Your task to perform on an android device: Open Google Chrome and click the shortcut for Amazon.com Image 0: 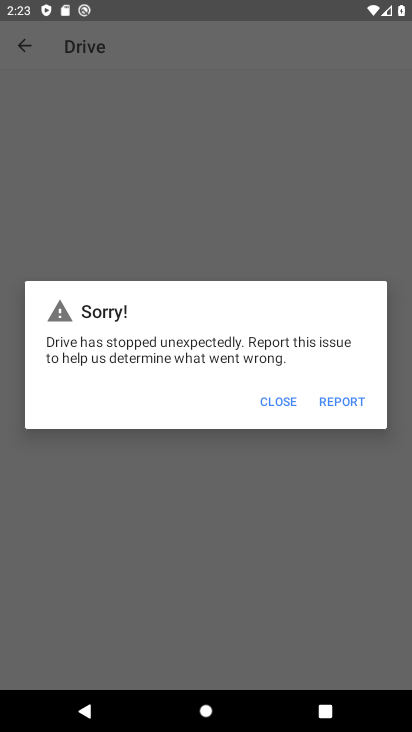
Step 0: press home button
Your task to perform on an android device: Open Google Chrome and click the shortcut for Amazon.com Image 1: 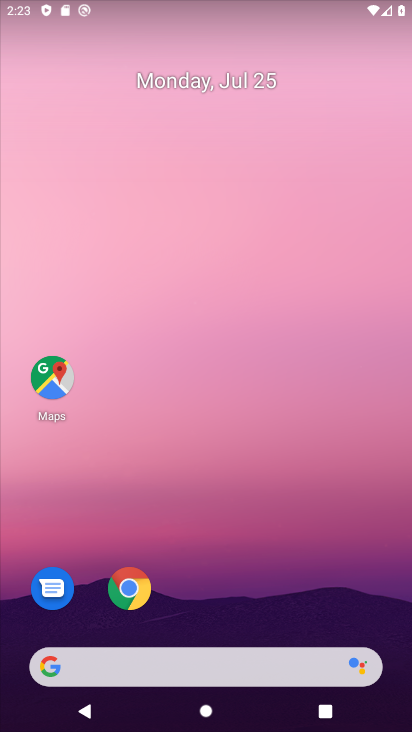
Step 1: drag from (275, 609) to (220, 73)
Your task to perform on an android device: Open Google Chrome and click the shortcut for Amazon.com Image 2: 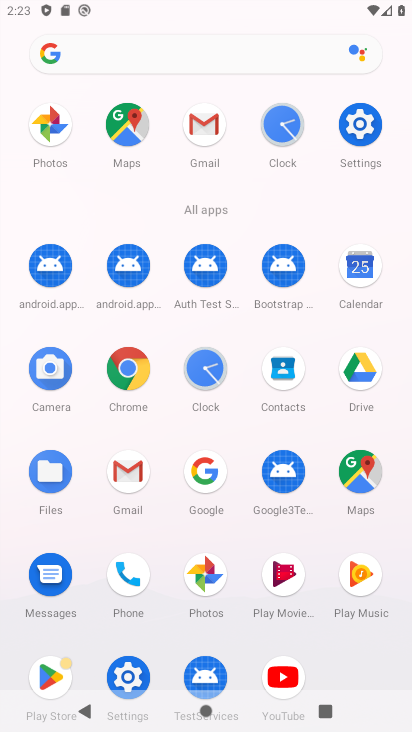
Step 2: click (130, 369)
Your task to perform on an android device: Open Google Chrome and click the shortcut for Amazon.com Image 3: 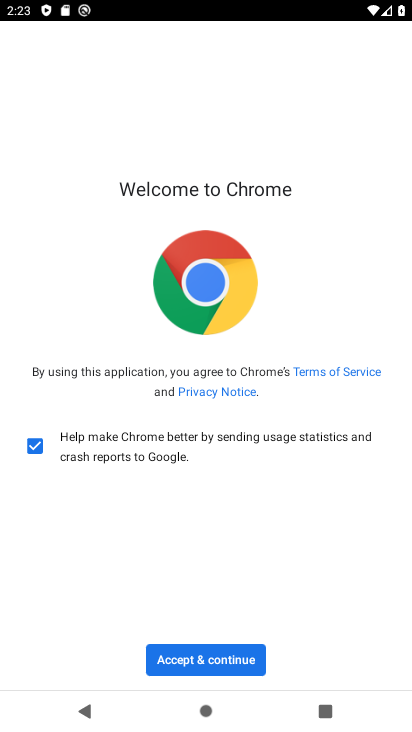
Step 3: click (242, 647)
Your task to perform on an android device: Open Google Chrome and click the shortcut for Amazon.com Image 4: 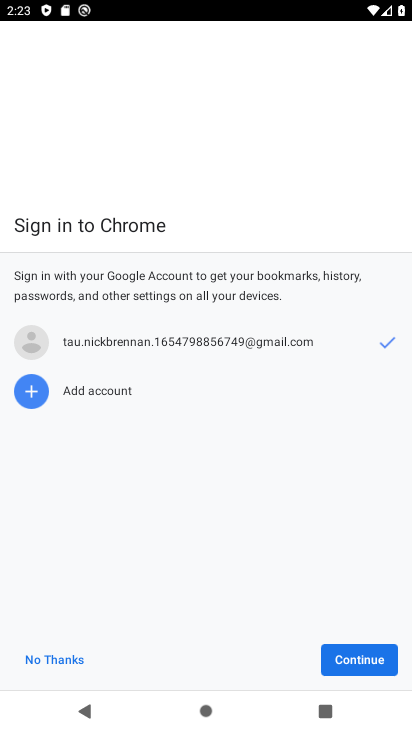
Step 4: click (365, 659)
Your task to perform on an android device: Open Google Chrome and click the shortcut for Amazon.com Image 5: 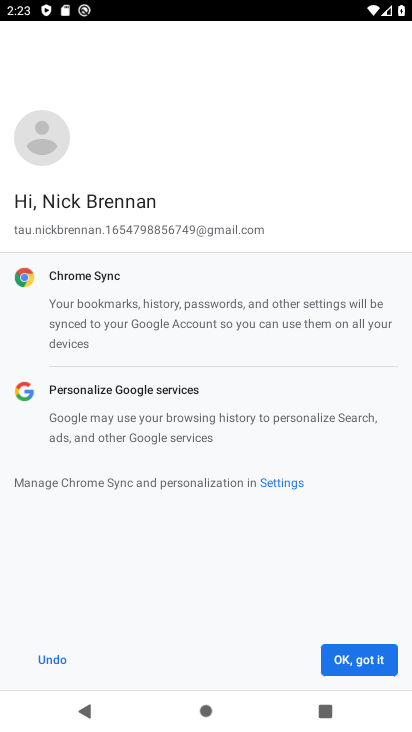
Step 5: click (365, 659)
Your task to perform on an android device: Open Google Chrome and click the shortcut for Amazon.com Image 6: 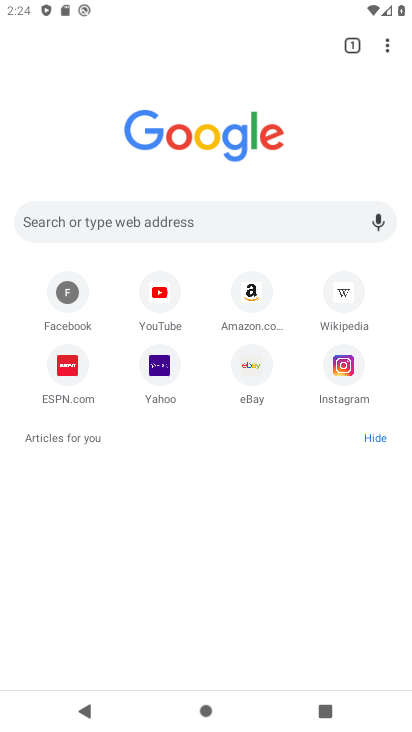
Step 6: click (265, 286)
Your task to perform on an android device: Open Google Chrome and click the shortcut for Amazon.com Image 7: 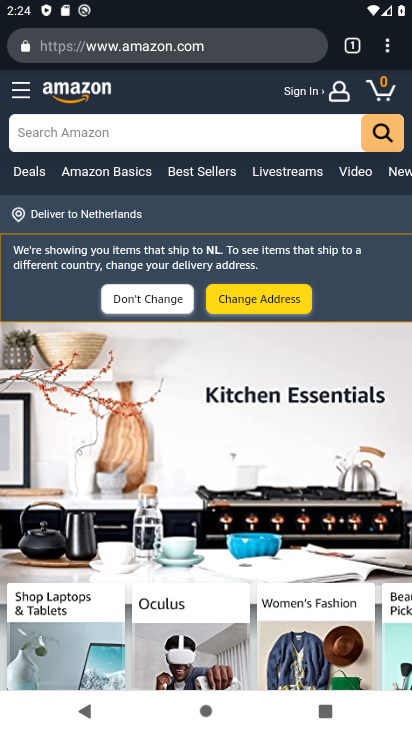
Step 7: task complete